Your task to perform on an android device: add a contact in the contacts app Image 0: 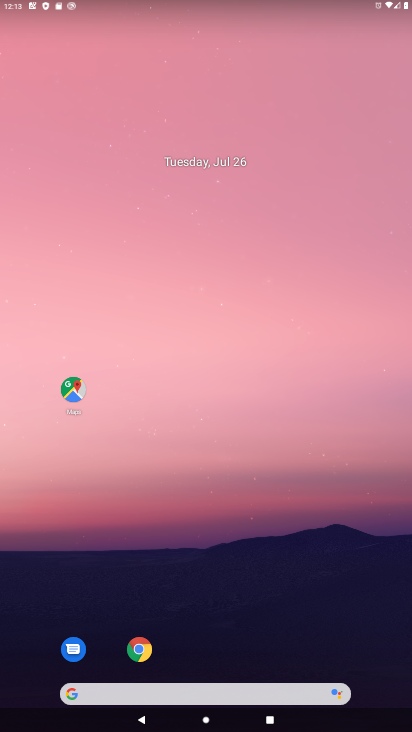
Step 0: drag from (222, 727) to (239, 23)
Your task to perform on an android device: add a contact in the contacts app Image 1: 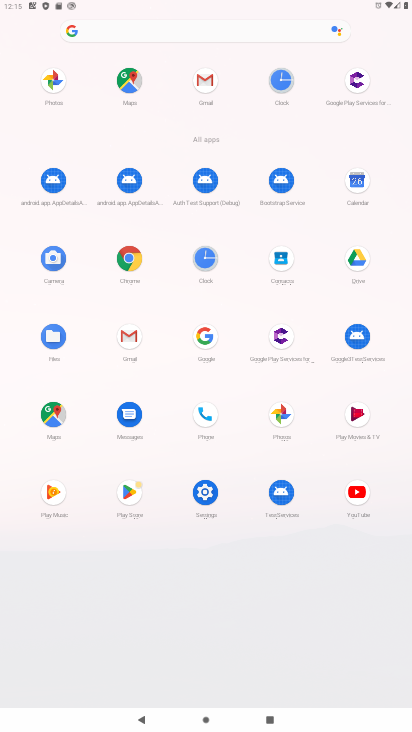
Step 1: click (356, 179)
Your task to perform on an android device: add a contact in the contacts app Image 2: 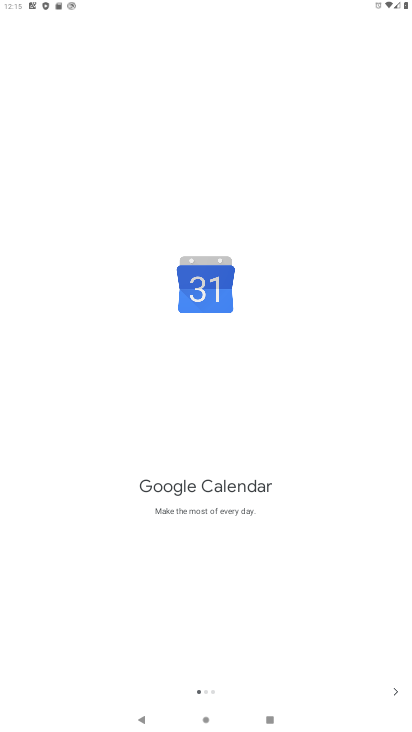
Step 2: click (395, 690)
Your task to perform on an android device: add a contact in the contacts app Image 3: 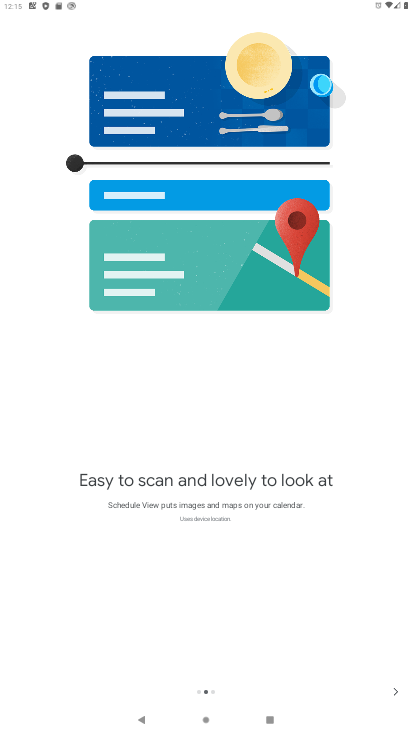
Step 3: click (395, 690)
Your task to perform on an android device: add a contact in the contacts app Image 4: 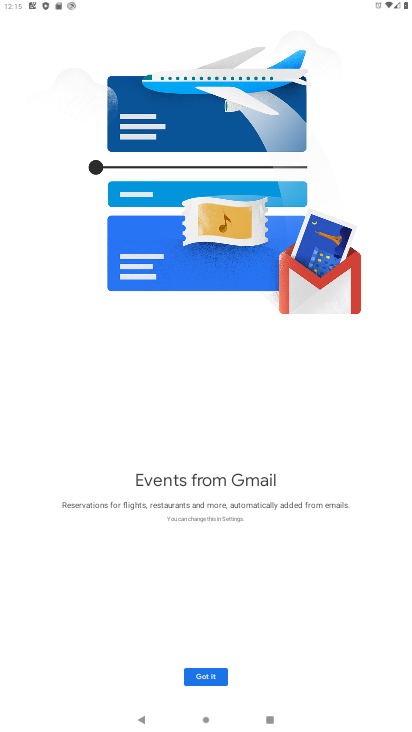
Step 4: click (214, 682)
Your task to perform on an android device: add a contact in the contacts app Image 5: 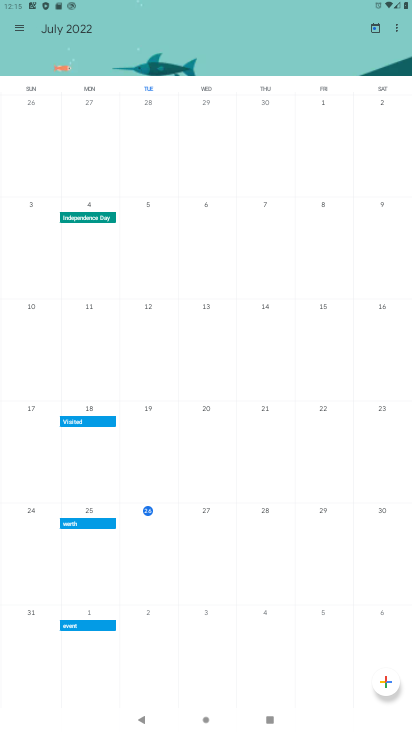
Step 5: press home button
Your task to perform on an android device: add a contact in the contacts app Image 6: 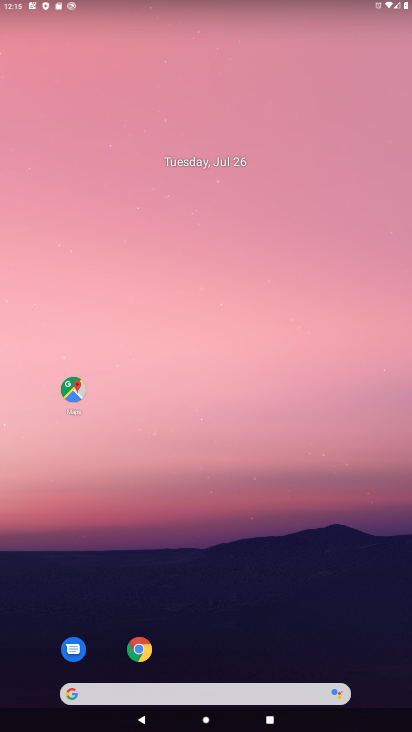
Step 6: drag from (238, 719) to (238, 21)
Your task to perform on an android device: add a contact in the contacts app Image 7: 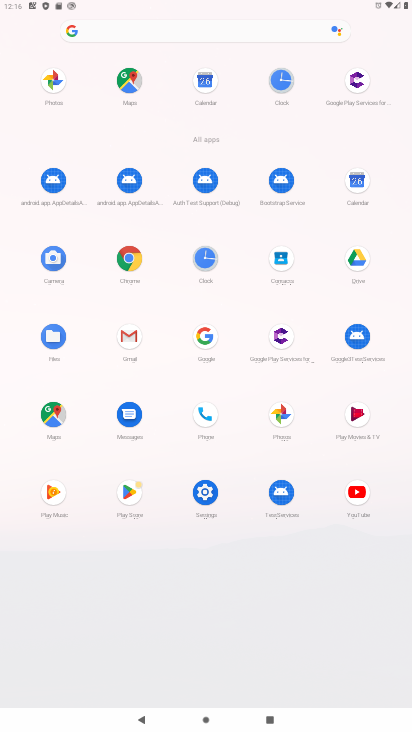
Step 7: click (280, 251)
Your task to perform on an android device: add a contact in the contacts app Image 8: 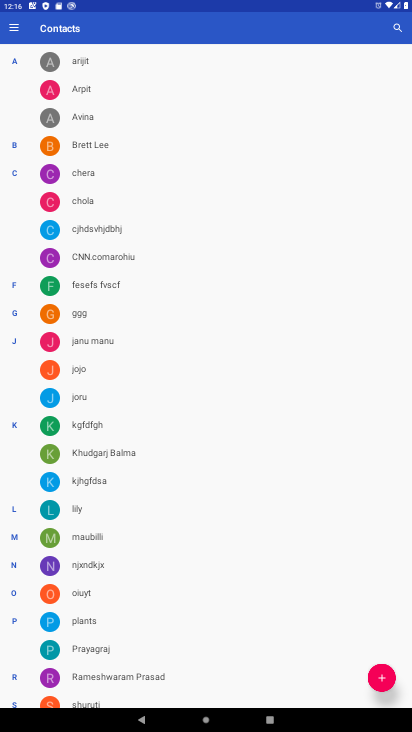
Step 8: click (384, 679)
Your task to perform on an android device: add a contact in the contacts app Image 9: 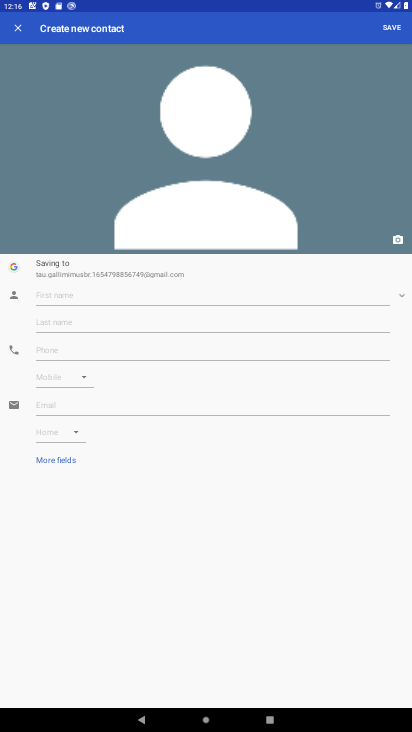
Step 9: click (57, 296)
Your task to perform on an android device: add a contact in the contacts app Image 10: 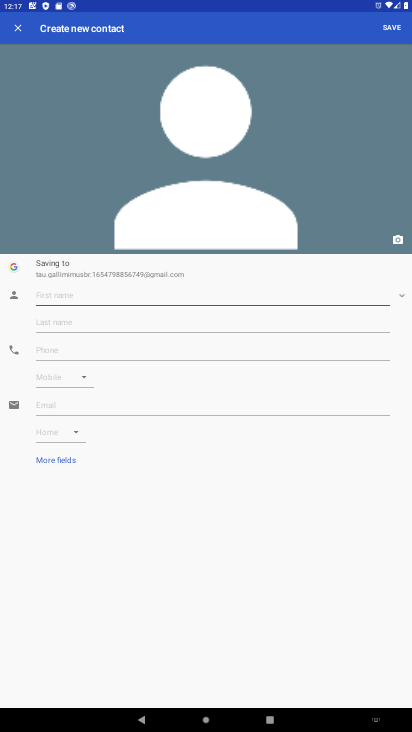
Step 10: type "vikmaditya"
Your task to perform on an android device: add a contact in the contacts app Image 11: 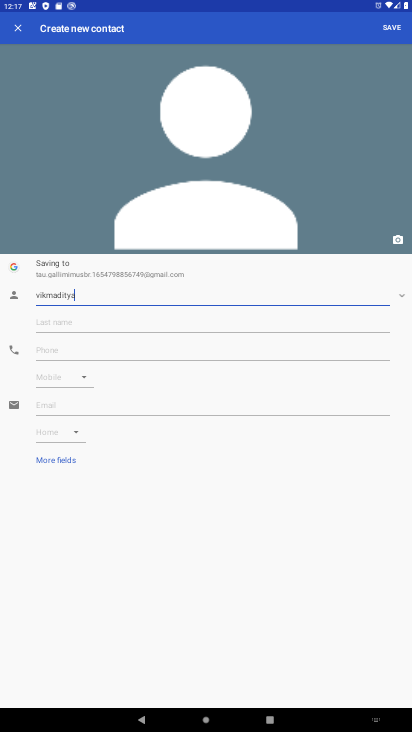
Step 11: click (72, 347)
Your task to perform on an android device: add a contact in the contacts app Image 12: 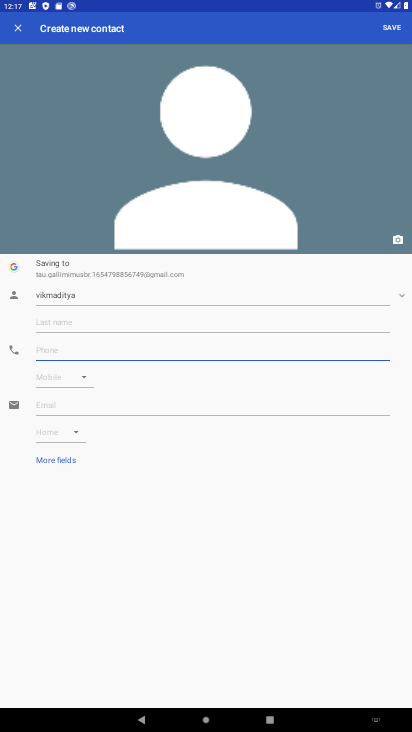
Step 12: type "787878"
Your task to perform on an android device: add a contact in the contacts app Image 13: 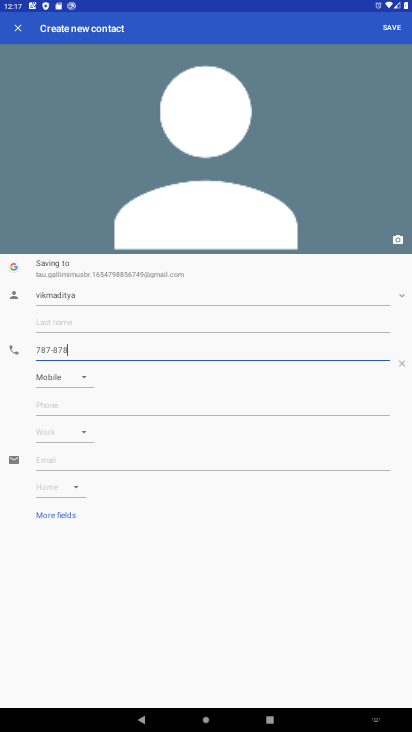
Step 13: click (388, 23)
Your task to perform on an android device: add a contact in the contacts app Image 14: 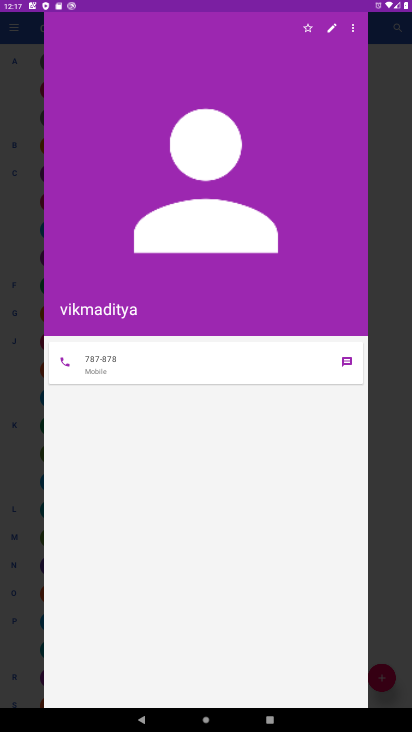
Step 14: task complete